Your task to perform on an android device: turn notification dots off Image 0: 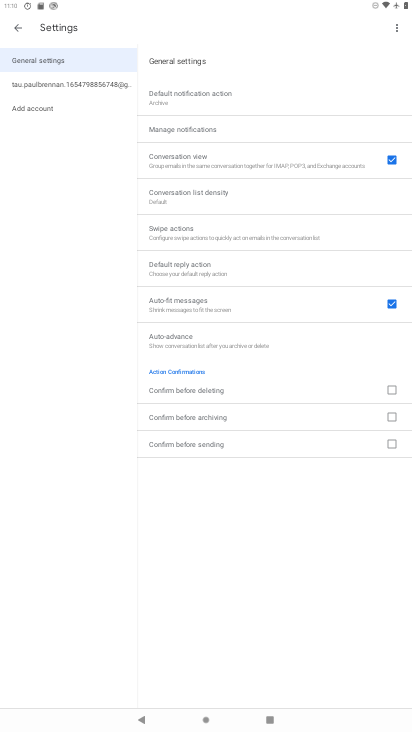
Step 0: press home button
Your task to perform on an android device: turn notification dots off Image 1: 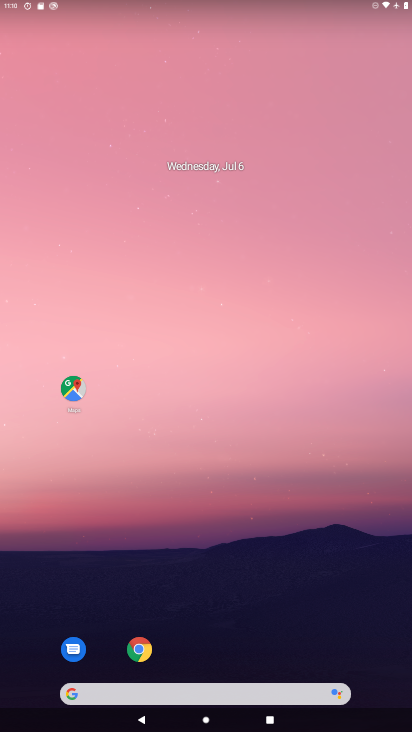
Step 1: drag from (387, 709) to (250, 116)
Your task to perform on an android device: turn notification dots off Image 2: 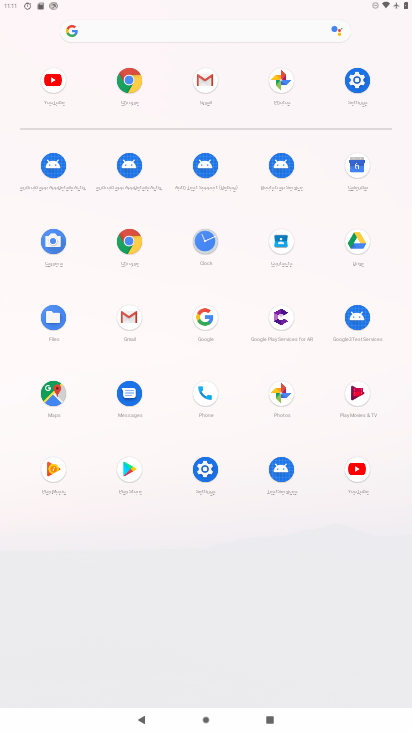
Step 2: click (346, 81)
Your task to perform on an android device: turn notification dots off Image 3: 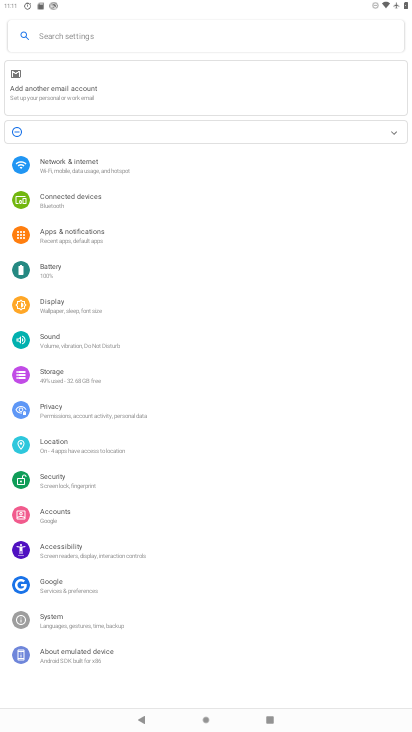
Step 3: click (55, 238)
Your task to perform on an android device: turn notification dots off Image 4: 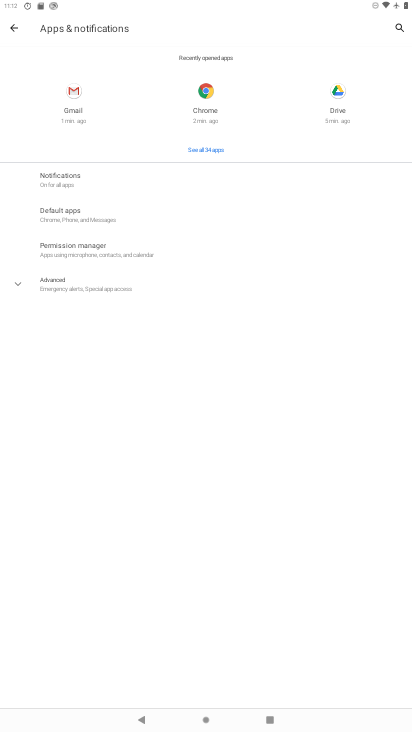
Step 4: click (55, 172)
Your task to perform on an android device: turn notification dots off Image 5: 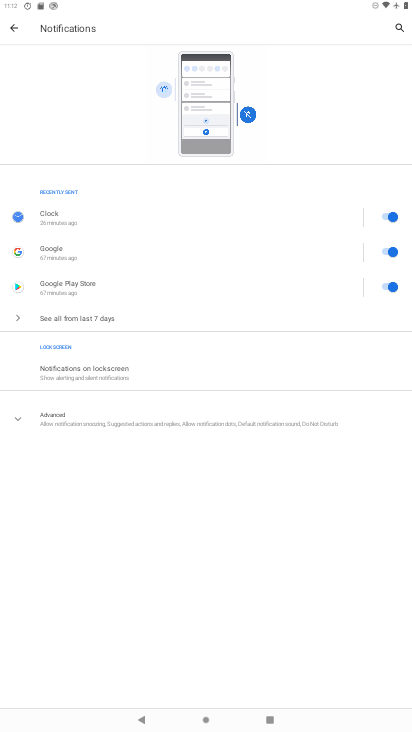
Step 5: click (24, 415)
Your task to perform on an android device: turn notification dots off Image 6: 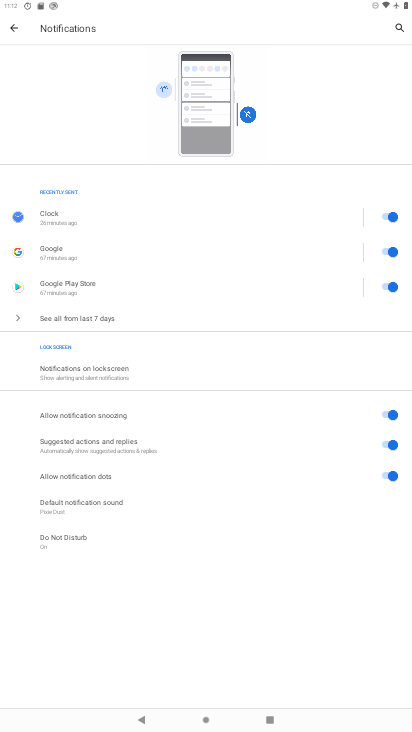
Step 6: click (382, 469)
Your task to perform on an android device: turn notification dots off Image 7: 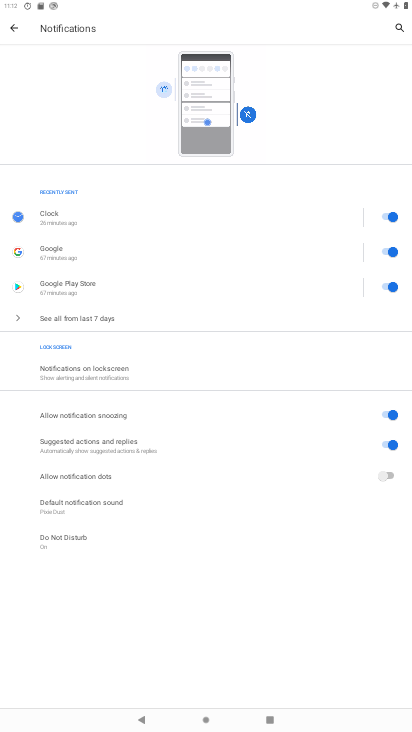
Step 7: task complete